Your task to perform on an android device: toggle show notifications on the lock screen Image 0: 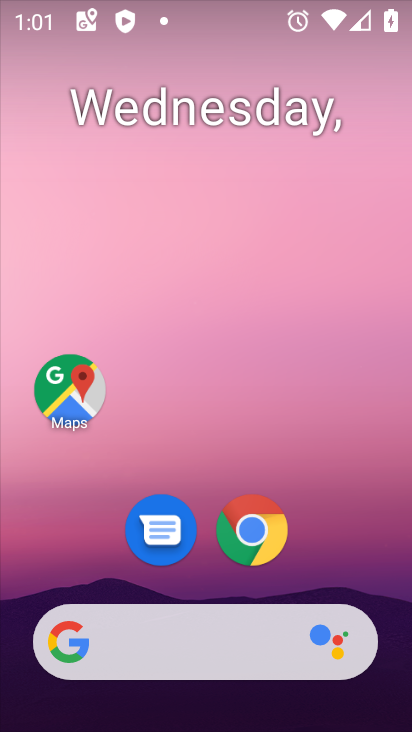
Step 0: click (246, 532)
Your task to perform on an android device: toggle show notifications on the lock screen Image 1: 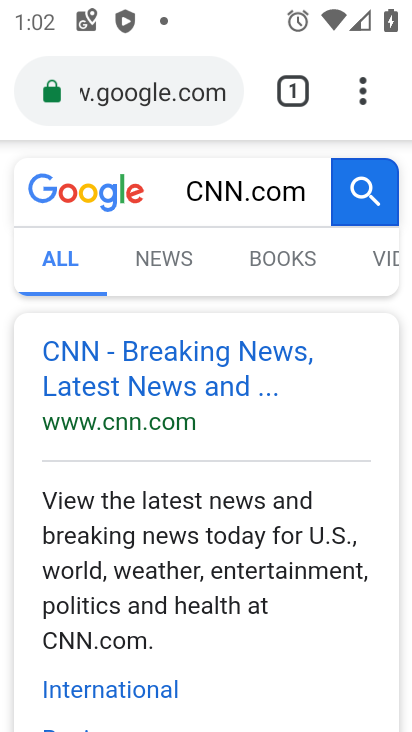
Step 1: press home button
Your task to perform on an android device: toggle show notifications on the lock screen Image 2: 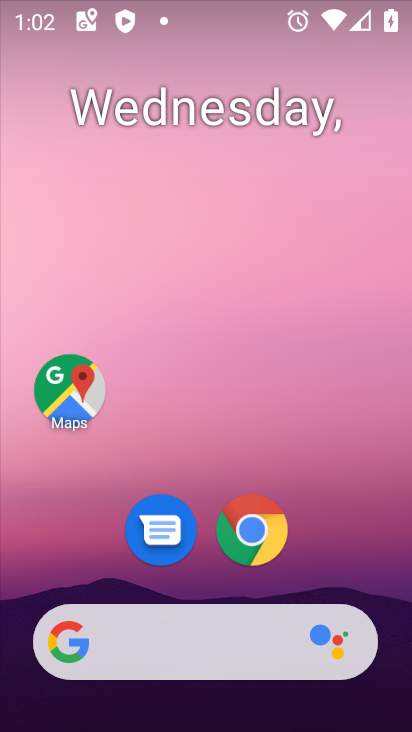
Step 2: drag from (210, 582) to (228, 128)
Your task to perform on an android device: toggle show notifications on the lock screen Image 3: 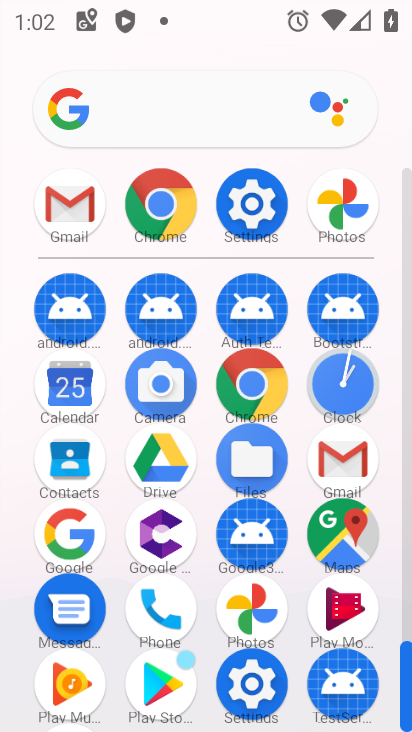
Step 3: click (258, 206)
Your task to perform on an android device: toggle show notifications on the lock screen Image 4: 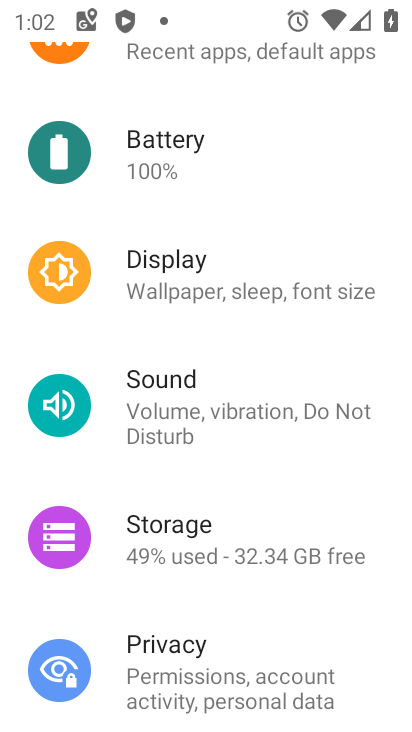
Step 4: drag from (205, 587) to (298, 199)
Your task to perform on an android device: toggle show notifications on the lock screen Image 5: 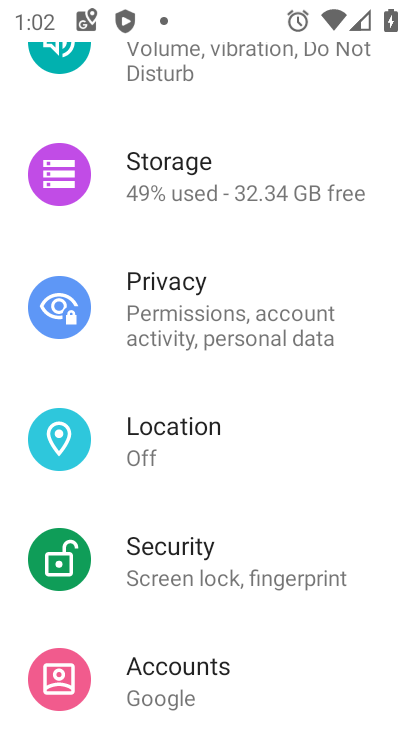
Step 5: drag from (198, 294) to (266, 618)
Your task to perform on an android device: toggle show notifications on the lock screen Image 6: 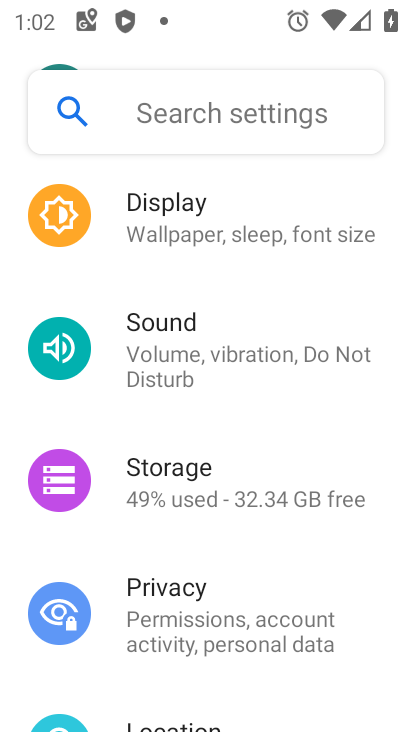
Step 6: drag from (243, 301) to (242, 568)
Your task to perform on an android device: toggle show notifications on the lock screen Image 7: 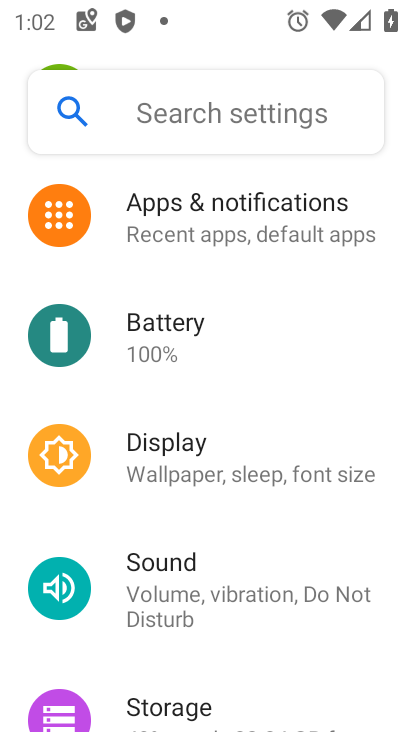
Step 7: click (219, 233)
Your task to perform on an android device: toggle show notifications on the lock screen Image 8: 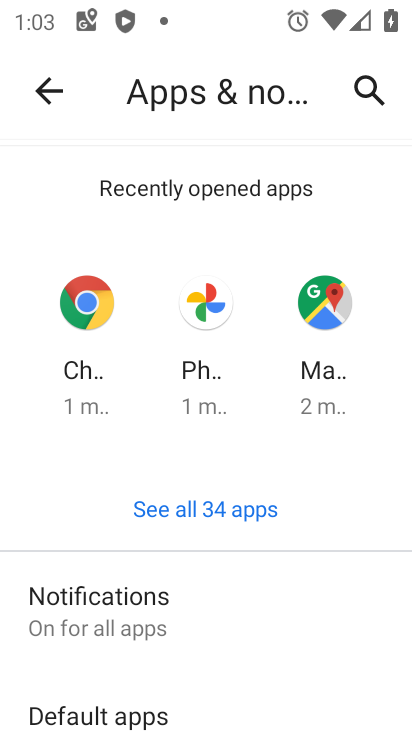
Step 8: click (131, 627)
Your task to perform on an android device: toggle show notifications on the lock screen Image 9: 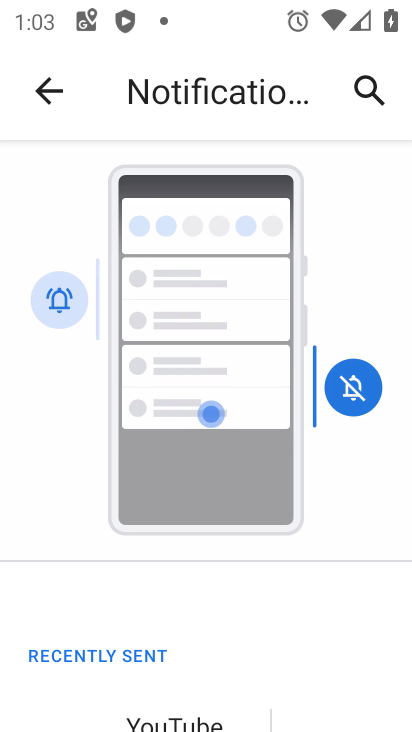
Step 9: drag from (124, 651) to (267, 113)
Your task to perform on an android device: toggle show notifications on the lock screen Image 10: 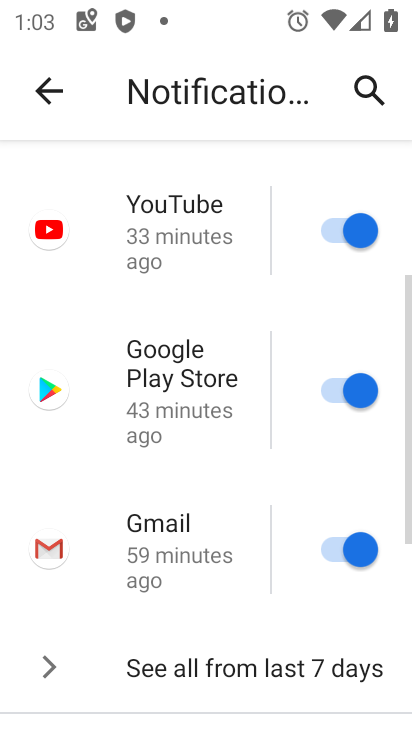
Step 10: drag from (144, 657) to (264, 268)
Your task to perform on an android device: toggle show notifications on the lock screen Image 11: 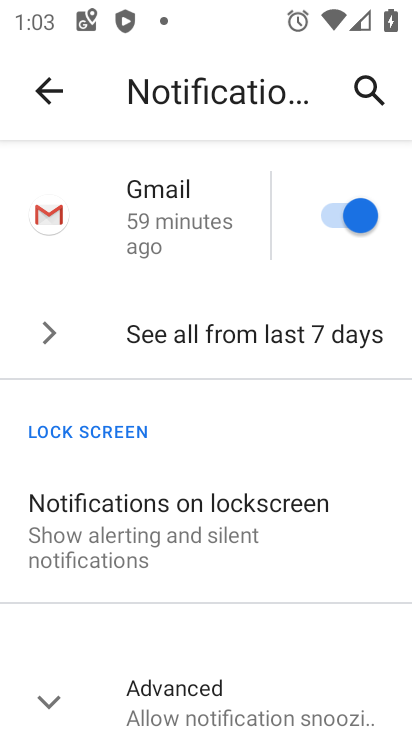
Step 11: click (132, 539)
Your task to perform on an android device: toggle show notifications on the lock screen Image 12: 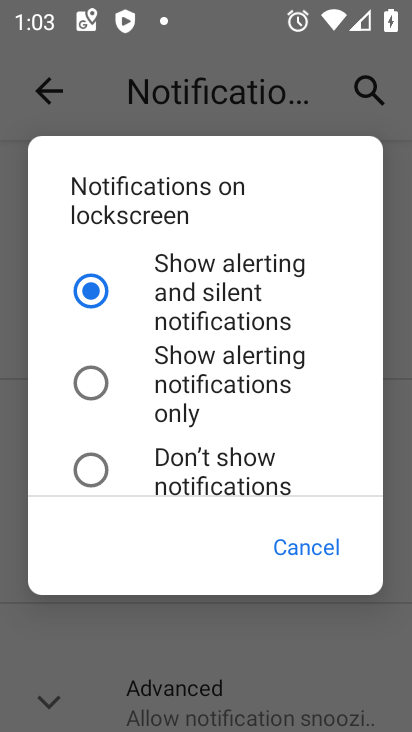
Step 12: task complete